Your task to perform on an android device: allow cookies in the chrome app Image 0: 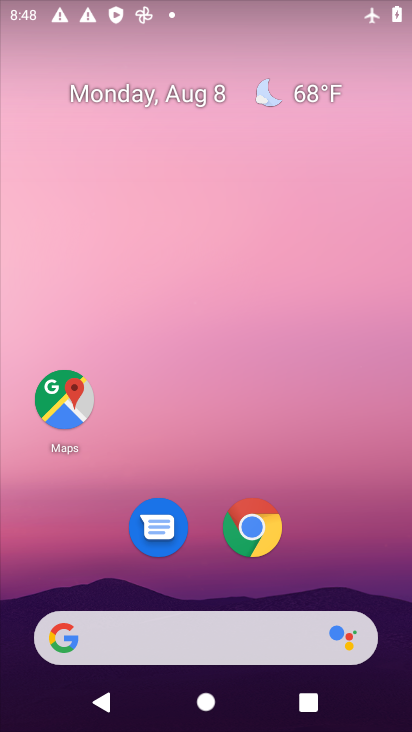
Step 0: click (257, 530)
Your task to perform on an android device: allow cookies in the chrome app Image 1: 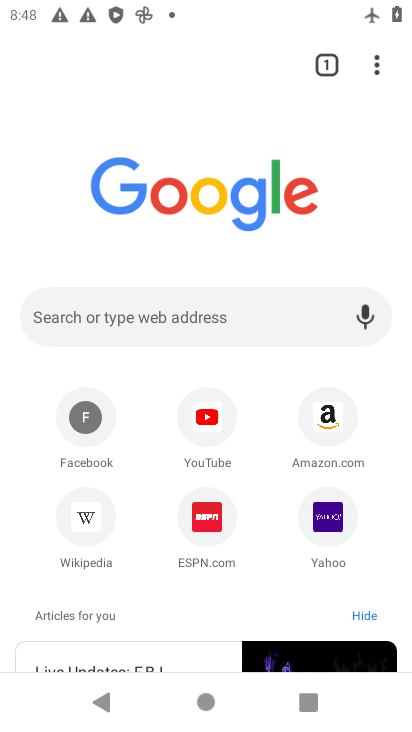
Step 1: click (372, 64)
Your task to perform on an android device: allow cookies in the chrome app Image 2: 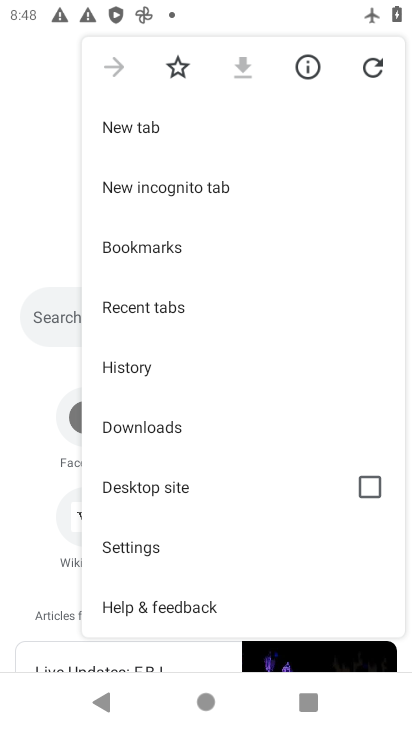
Step 2: click (139, 549)
Your task to perform on an android device: allow cookies in the chrome app Image 3: 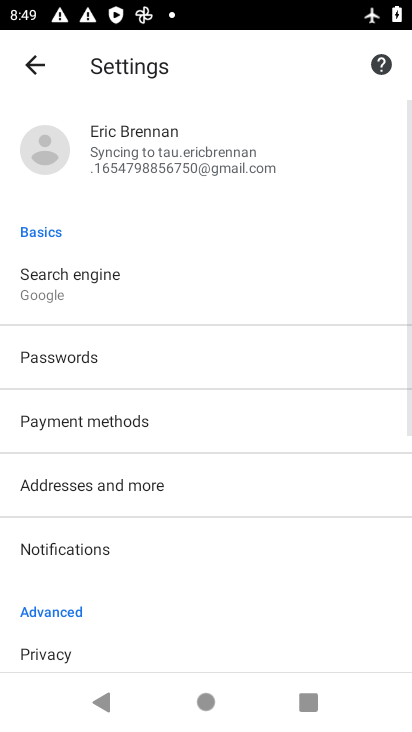
Step 3: drag from (184, 633) to (196, 326)
Your task to perform on an android device: allow cookies in the chrome app Image 4: 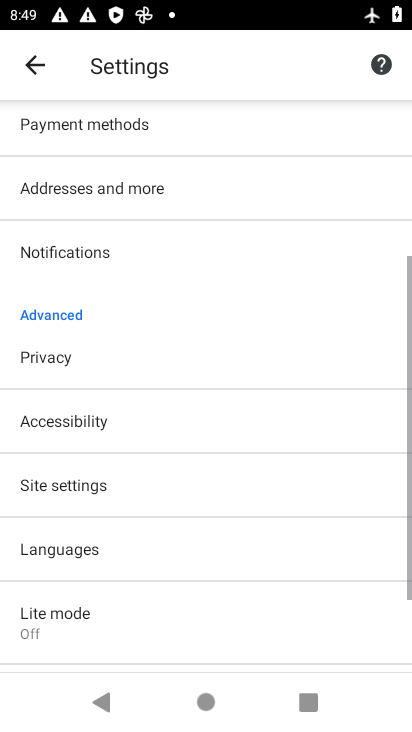
Step 4: click (54, 491)
Your task to perform on an android device: allow cookies in the chrome app Image 5: 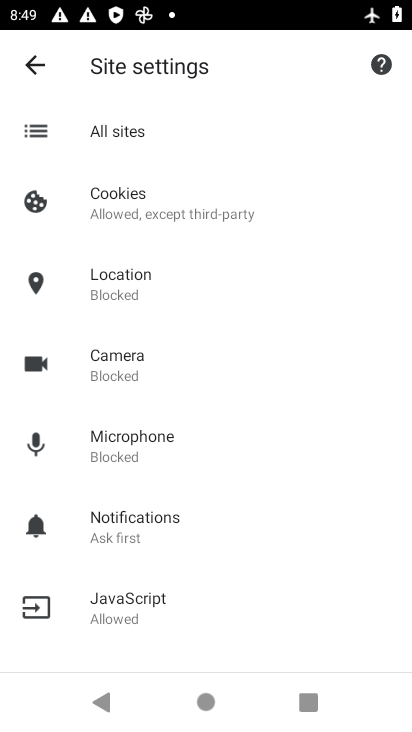
Step 5: click (145, 190)
Your task to perform on an android device: allow cookies in the chrome app Image 6: 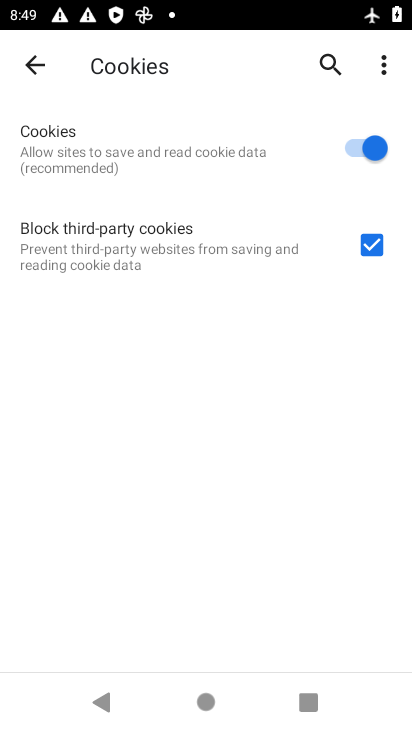
Step 6: task complete